Your task to perform on an android device: turn off priority inbox in the gmail app Image 0: 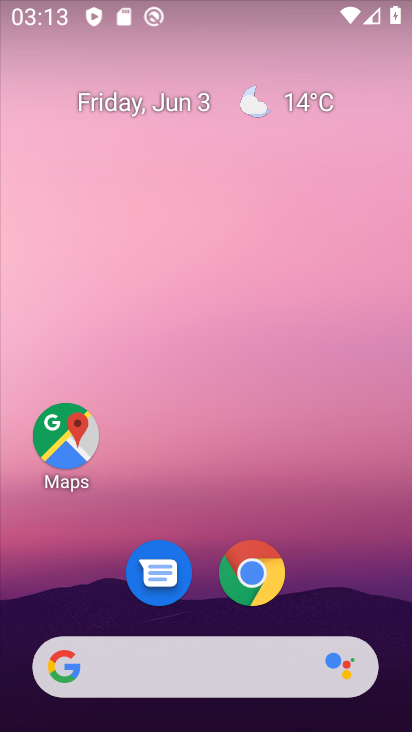
Step 0: drag from (316, 618) to (338, 0)
Your task to perform on an android device: turn off priority inbox in the gmail app Image 1: 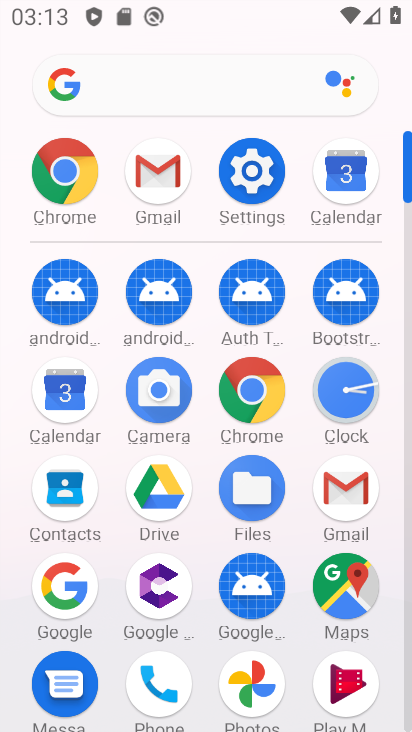
Step 1: click (336, 489)
Your task to perform on an android device: turn off priority inbox in the gmail app Image 2: 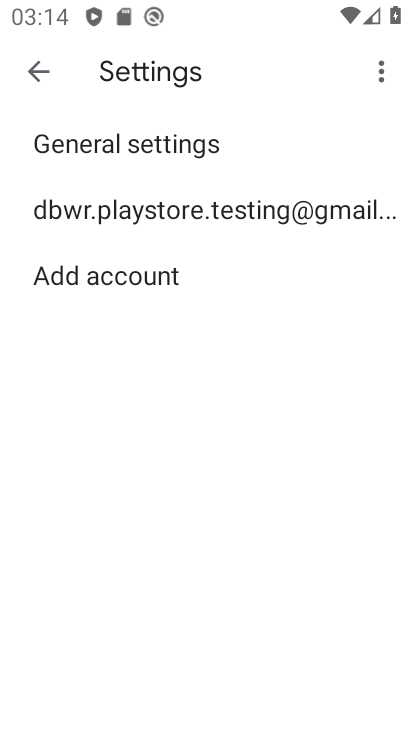
Step 2: click (245, 208)
Your task to perform on an android device: turn off priority inbox in the gmail app Image 3: 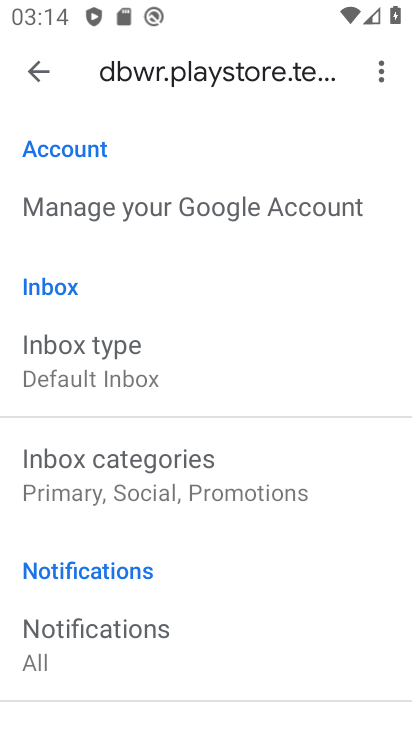
Step 3: click (142, 357)
Your task to perform on an android device: turn off priority inbox in the gmail app Image 4: 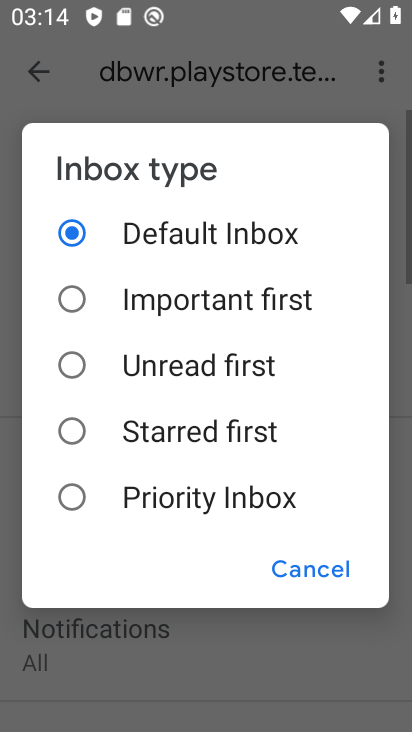
Step 4: click (70, 494)
Your task to perform on an android device: turn off priority inbox in the gmail app Image 5: 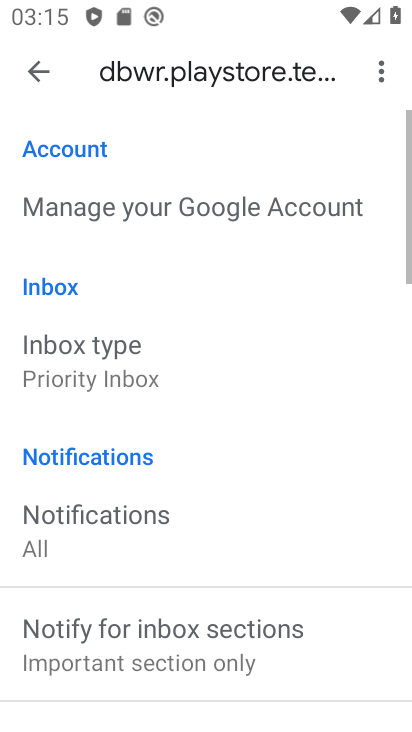
Step 5: click (66, 359)
Your task to perform on an android device: turn off priority inbox in the gmail app Image 6: 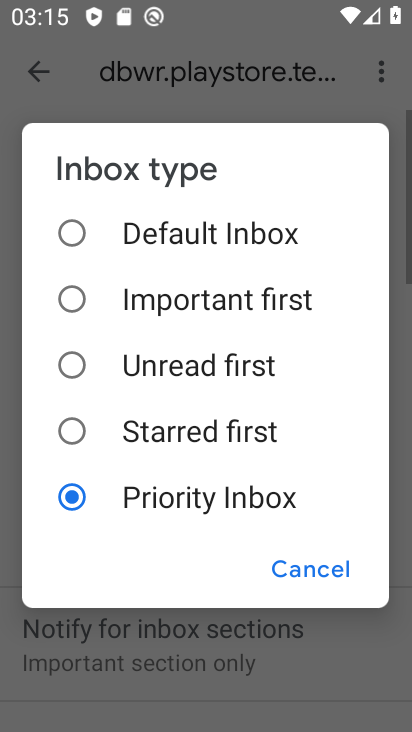
Step 6: click (73, 243)
Your task to perform on an android device: turn off priority inbox in the gmail app Image 7: 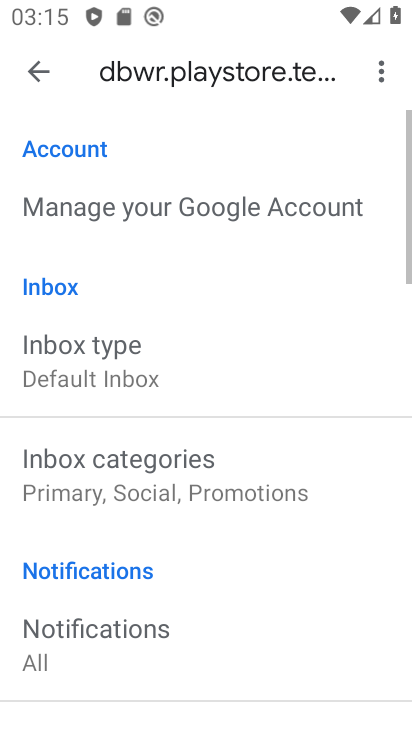
Step 7: task complete